Your task to perform on an android device: Empty the shopping cart on ebay. Image 0: 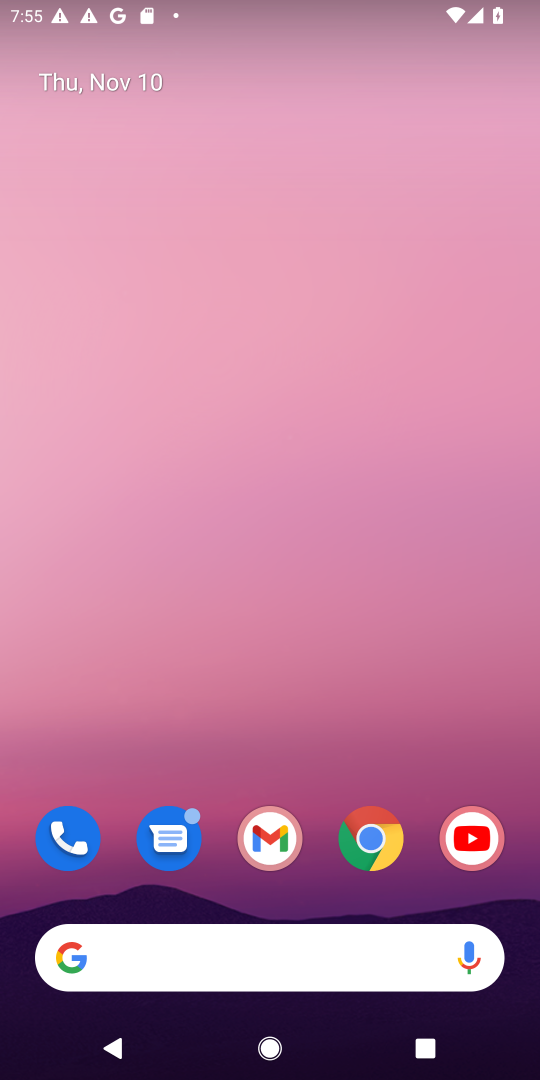
Step 0: drag from (309, 894) to (490, 0)
Your task to perform on an android device: Empty the shopping cart on ebay. Image 1: 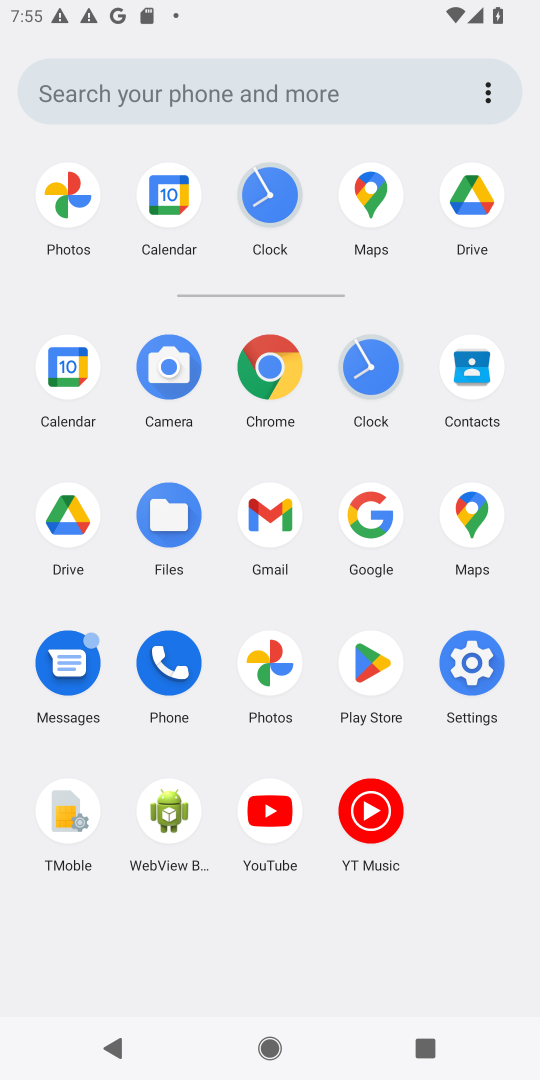
Step 1: click (262, 370)
Your task to perform on an android device: Empty the shopping cart on ebay. Image 2: 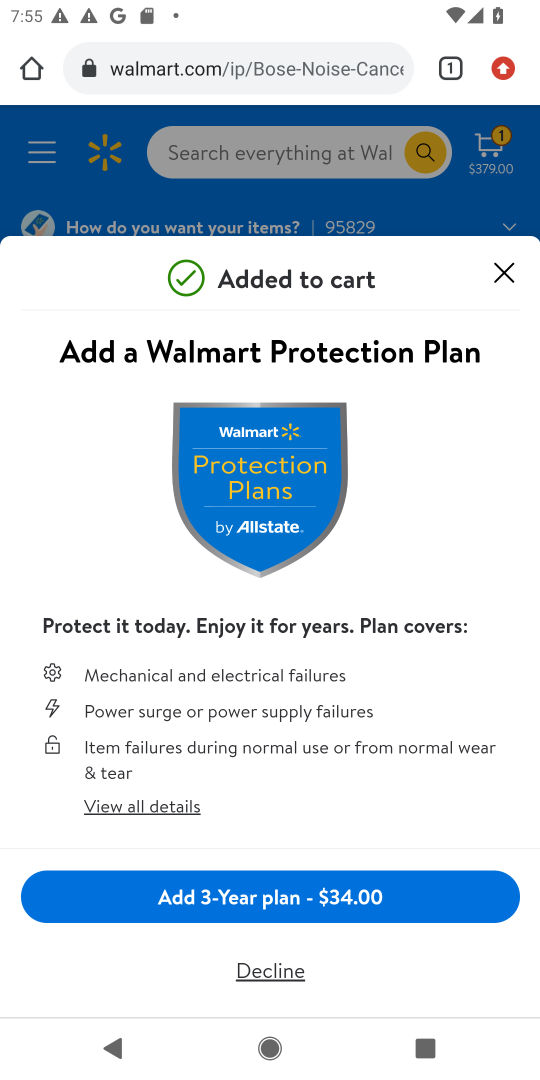
Step 2: click (308, 48)
Your task to perform on an android device: Empty the shopping cart on ebay. Image 3: 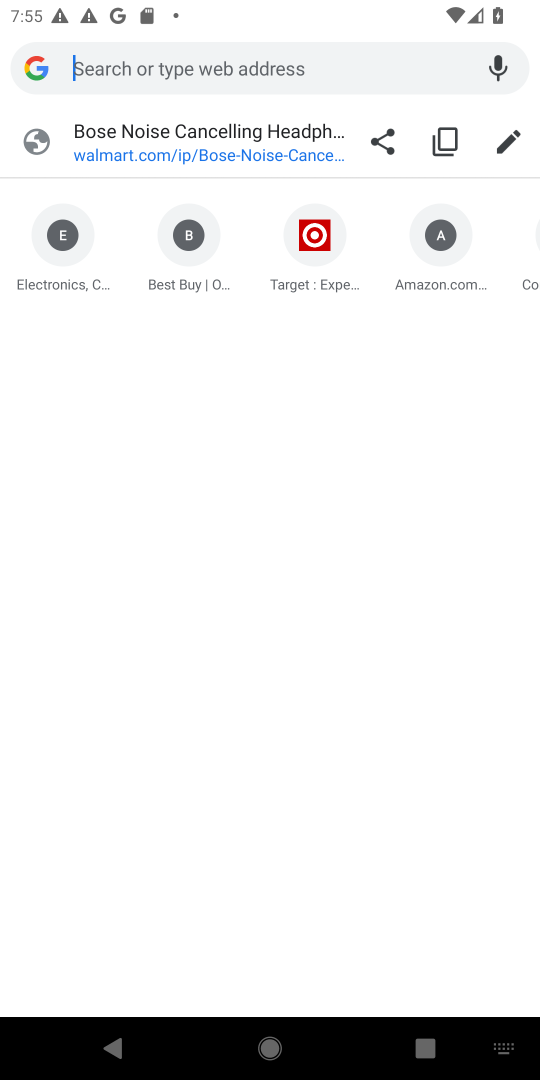
Step 3: type "ebay.com"
Your task to perform on an android device: Empty the shopping cart on ebay. Image 4: 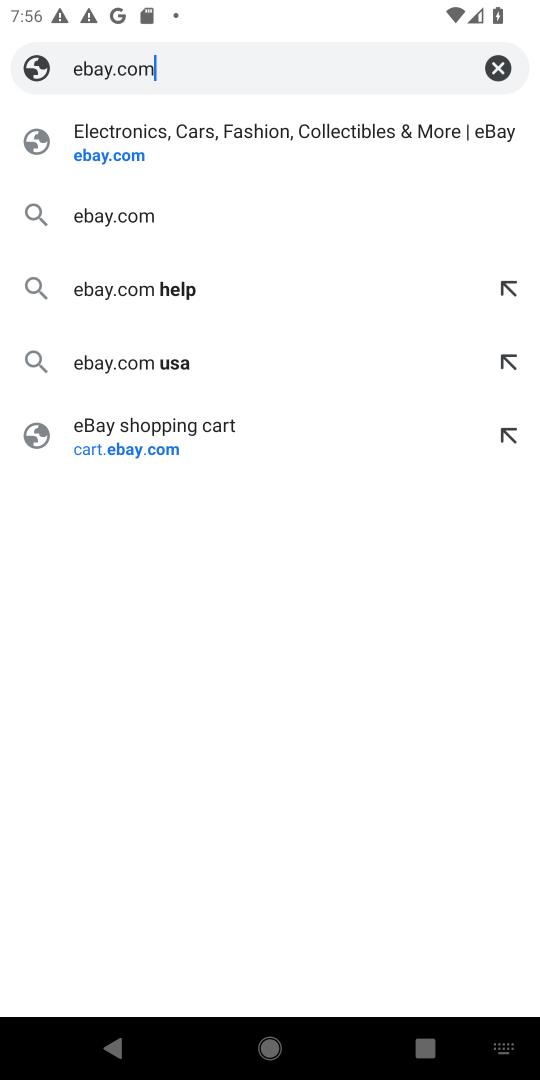
Step 4: press enter
Your task to perform on an android device: Empty the shopping cart on ebay. Image 5: 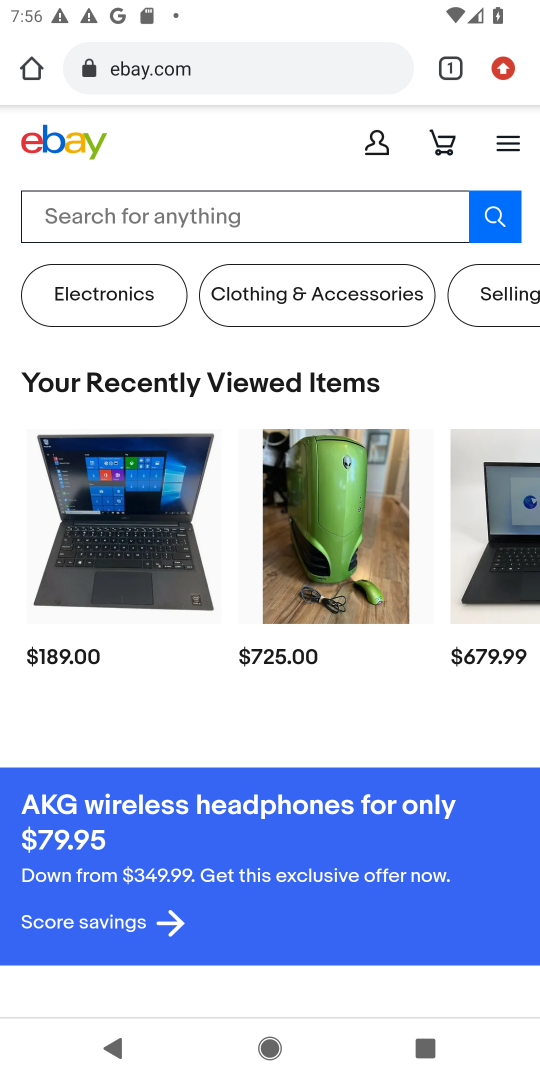
Step 5: drag from (338, 824) to (373, 289)
Your task to perform on an android device: Empty the shopping cart on ebay. Image 6: 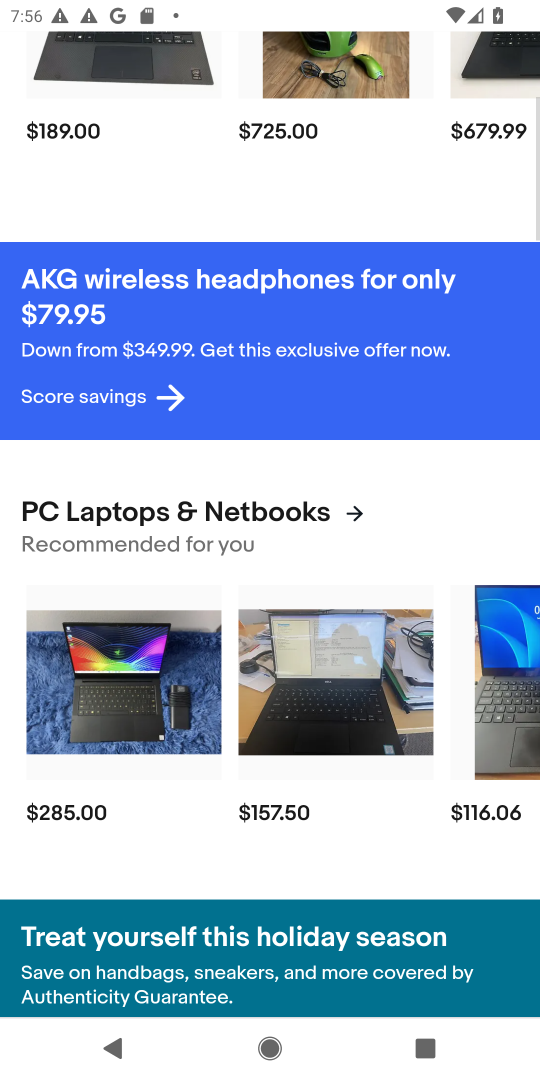
Step 6: drag from (123, 772) to (319, 200)
Your task to perform on an android device: Empty the shopping cart on ebay. Image 7: 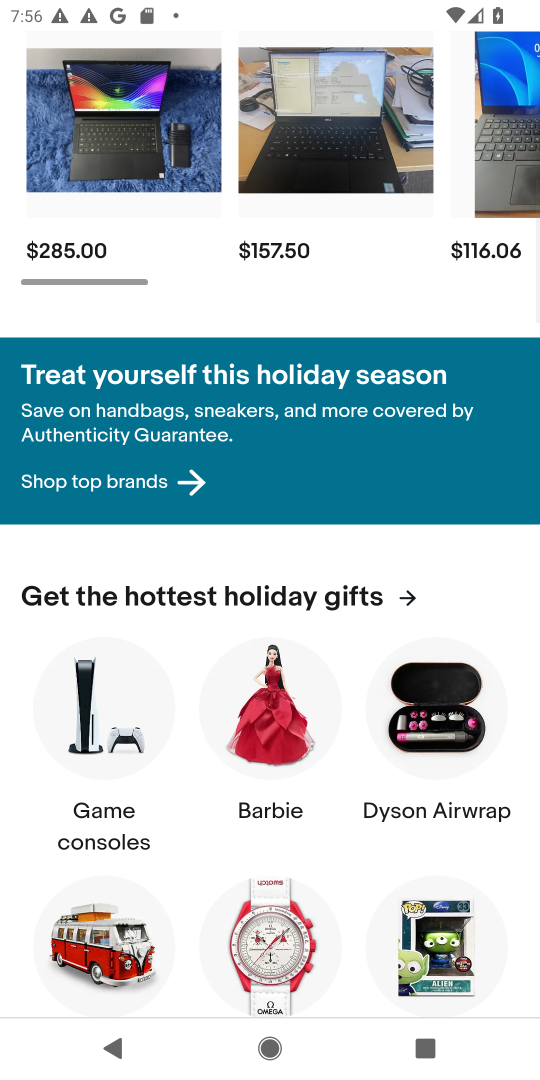
Step 7: drag from (170, 801) to (307, 158)
Your task to perform on an android device: Empty the shopping cart on ebay. Image 8: 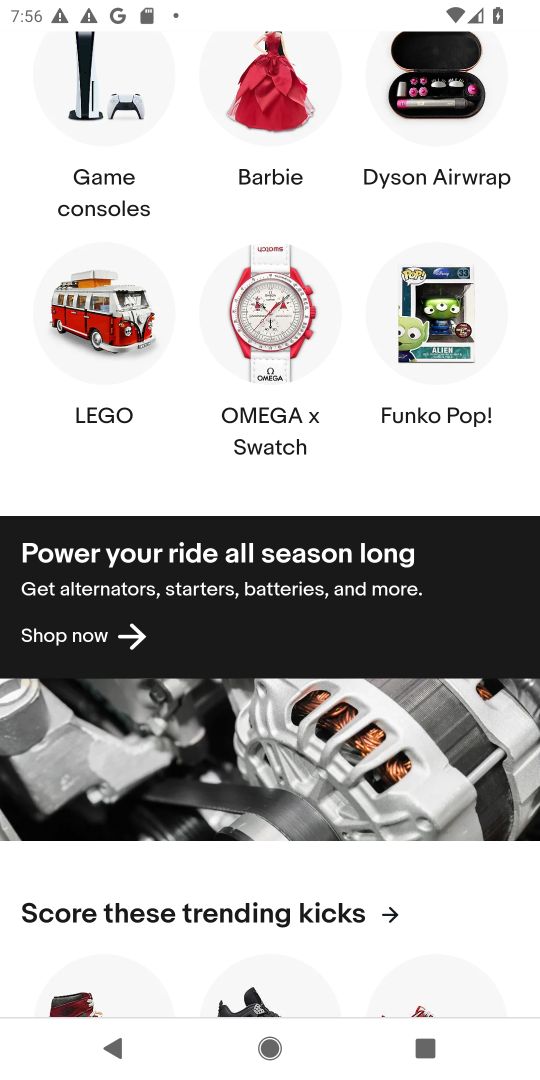
Step 8: drag from (240, 204) to (274, 856)
Your task to perform on an android device: Empty the shopping cart on ebay. Image 9: 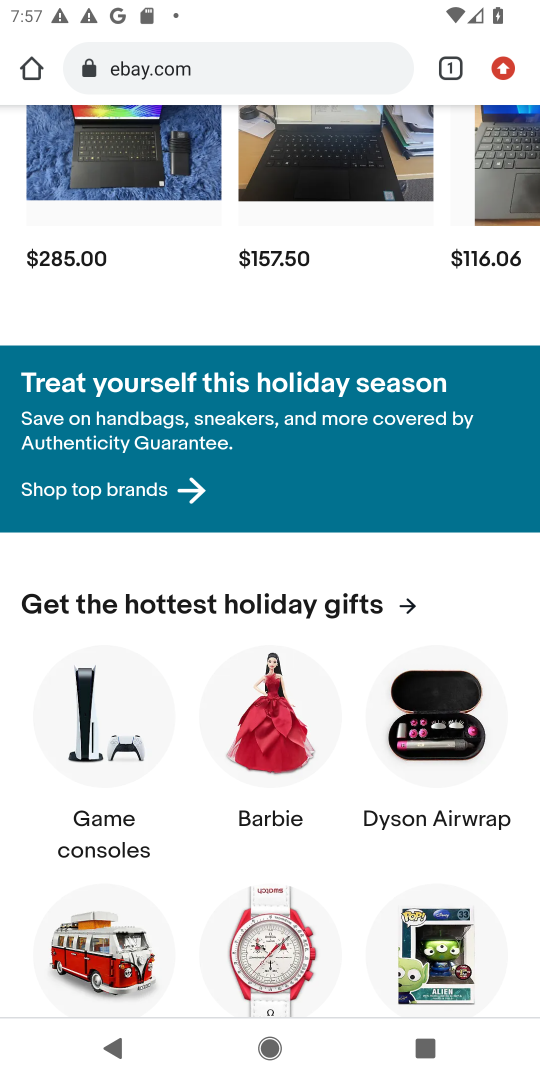
Step 9: drag from (268, 312) to (330, 969)
Your task to perform on an android device: Empty the shopping cart on ebay. Image 10: 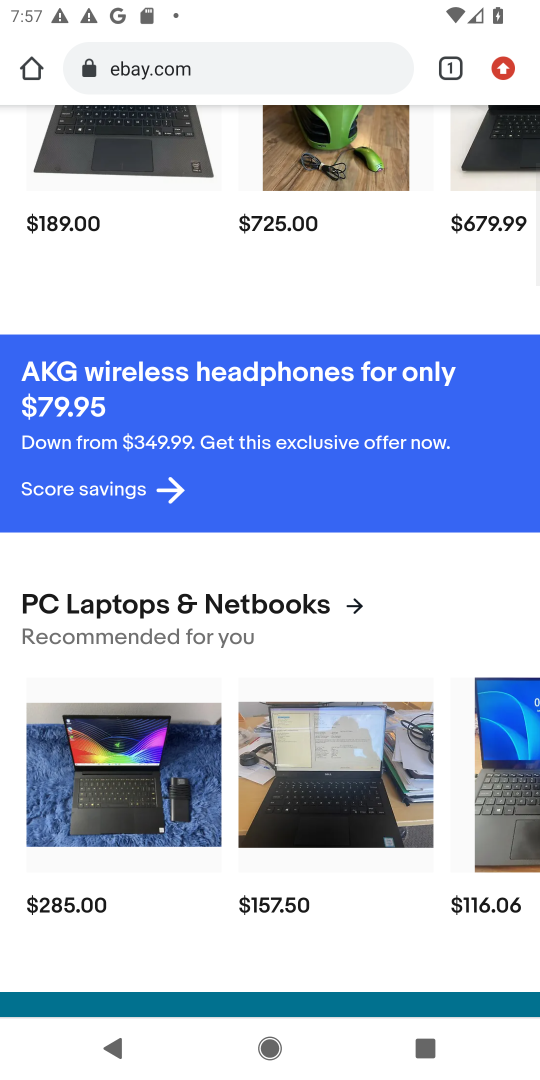
Step 10: drag from (384, 168) to (429, 965)
Your task to perform on an android device: Empty the shopping cart on ebay. Image 11: 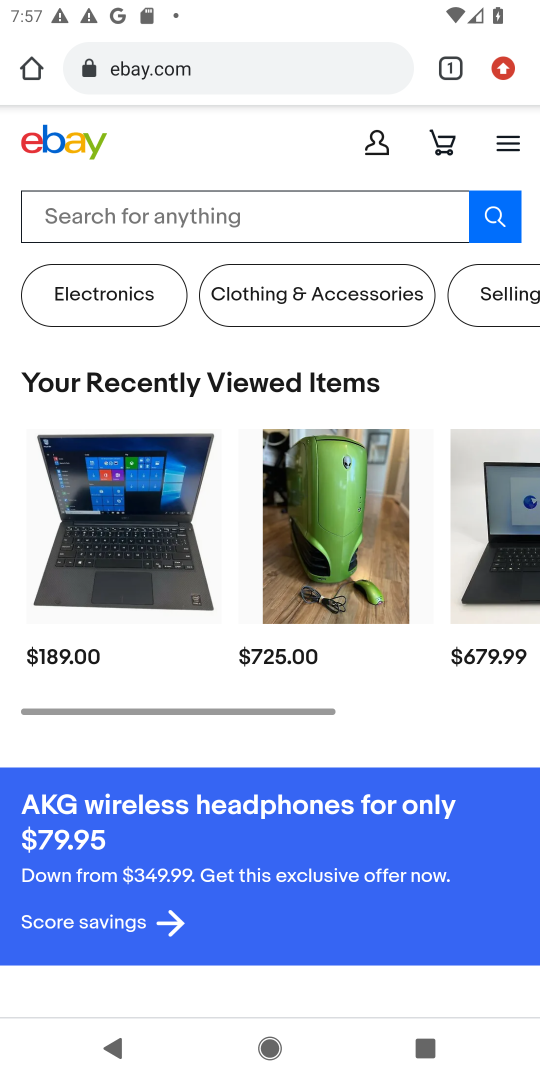
Step 11: click (449, 138)
Your task to perform on an android device: Empty the shopping cart on ebay. Image 12: 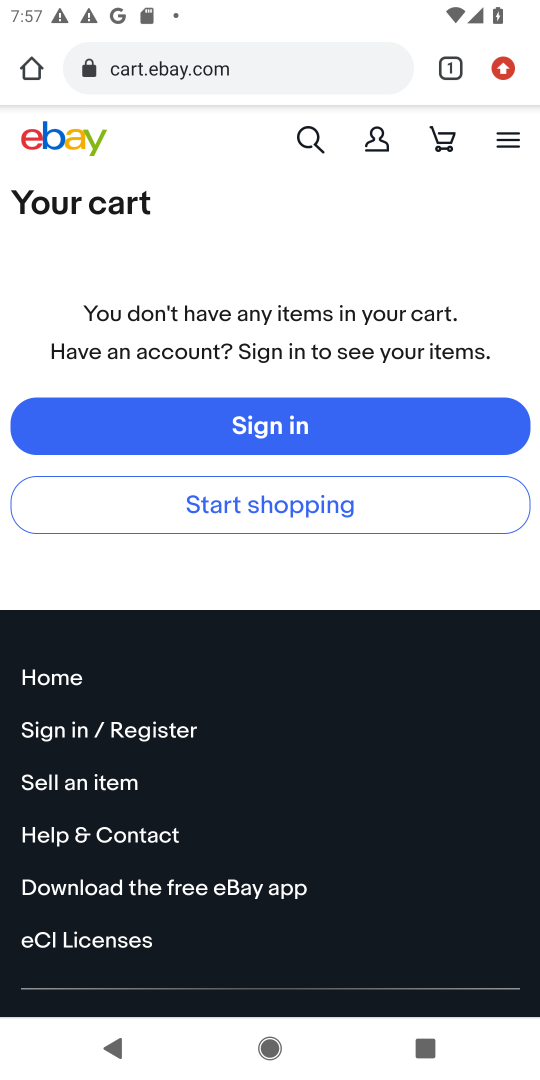
Step 12: task complete